Your task to perform on an android device: Go to battery settings Image 0: 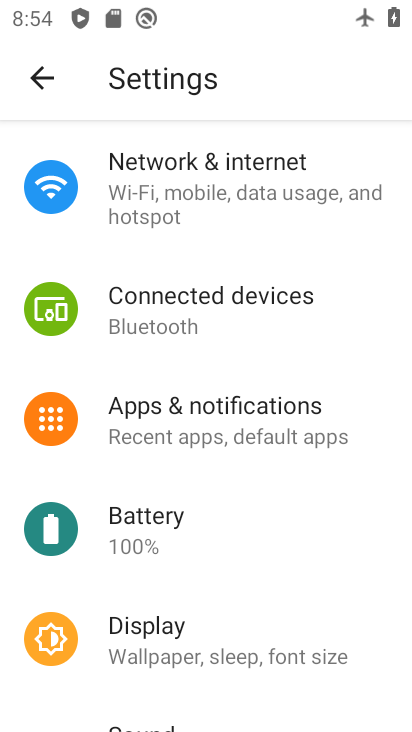
Step 0: press home button
Your task to perform on an android device: Go to battery settings Image 1: 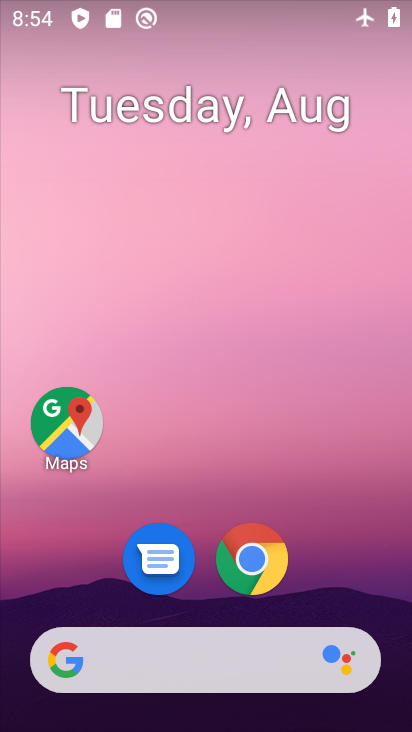
Step 1: drag from (316, 566) to (336, 94)
Your task to perform on an android device: Go to battery settings Image 2: 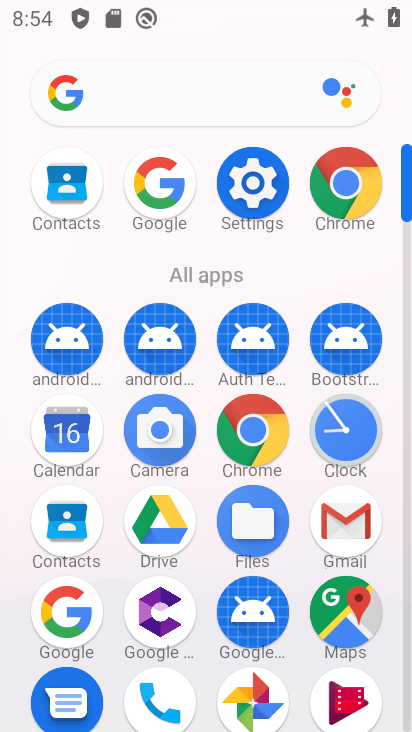
Step 2: click (252, 185)
Your task to perform on an android device: Go to battery settings Image 3: 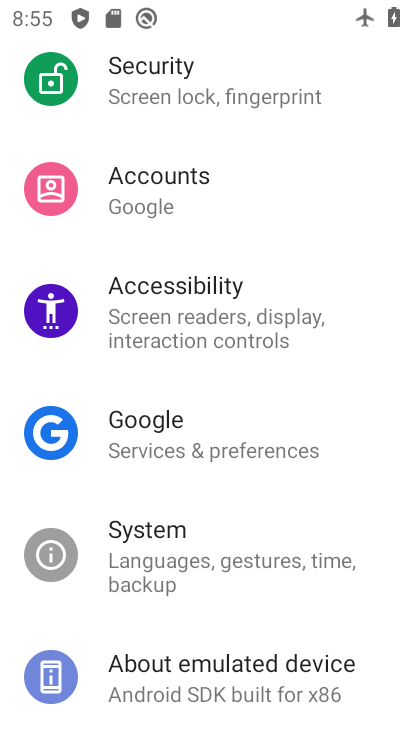
Step 3: drag from (271, 594) to (260, 216)
Your task to perform on an android device: Go to battery settings Image 4: 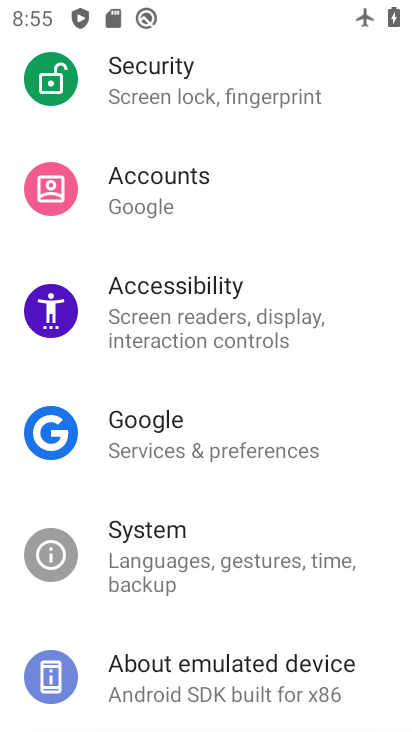
Step 4: drag from (271, 175) to (88, 695)
Your task to perform on an android device: Go to battery settings Image 5: 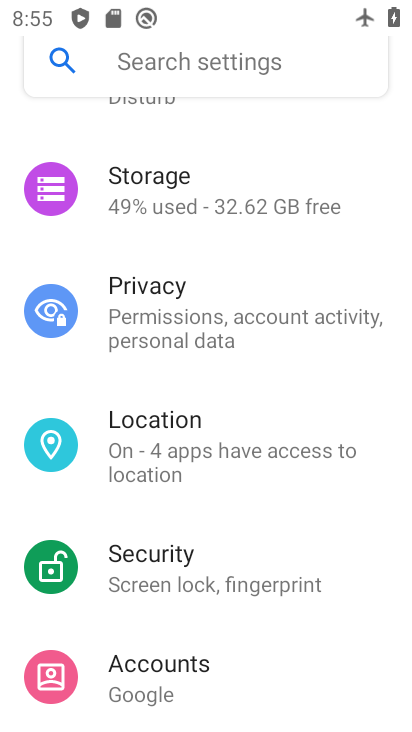
Step 5: drag from (211, 262) to (107, 615)
Your task to perform on an android device: Go to battery settings Image 6: 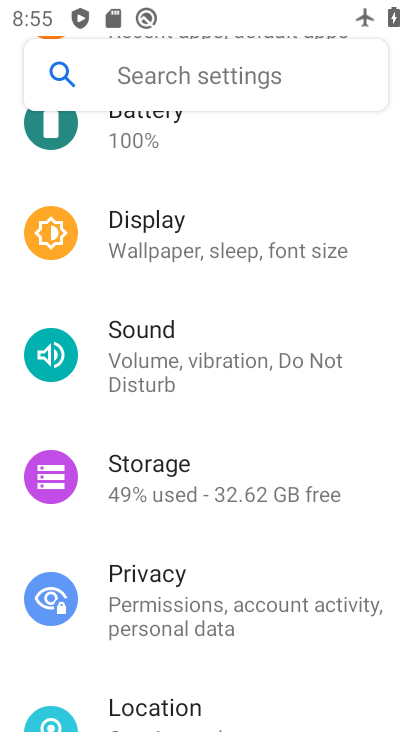
Step 6: drag from (248, 313) to (212, 426)
Your task to perform on an android device: Go to battery settings Image 7: 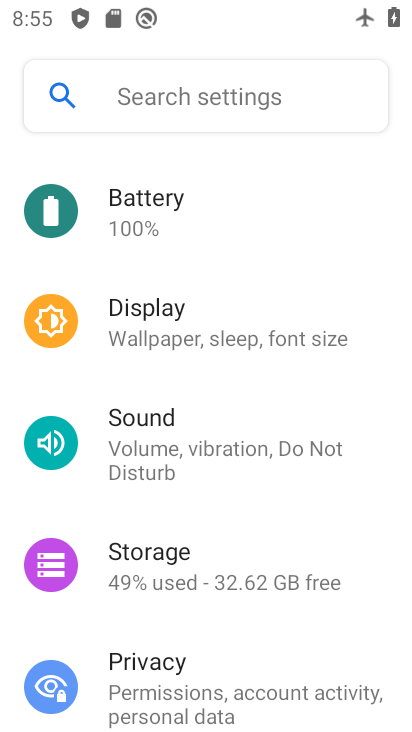
Step 7: click (138, 210)
Your task to perform on an android device: Go to battery settings Image 8: 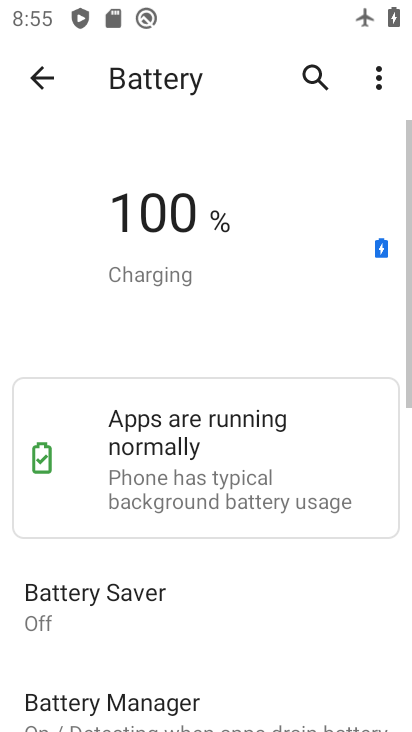
Step 8: task complete